Your task to perform on an android device: change the clock display to show seconds Image 0: 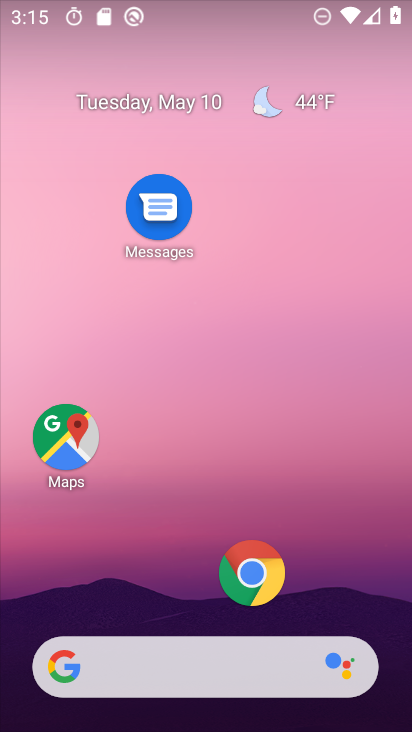
Step 0: drag from (166, 478) to (201, 201)
Your task to perform on an android device: change the clock display to show seconds Image 1: 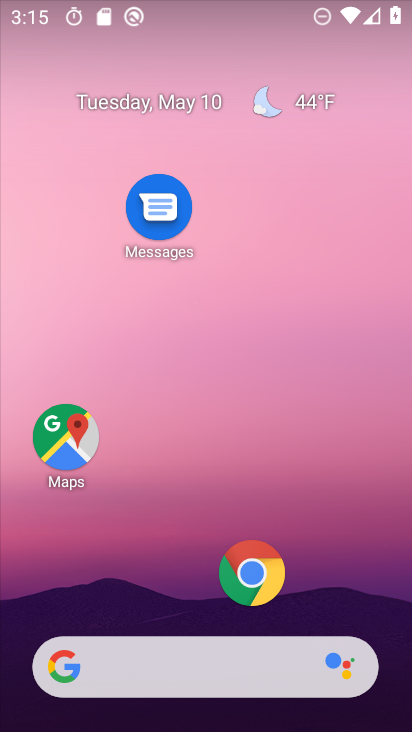
Step 1: drag from (200, 605) to (263, 140)
Your task to perform on an android device: change the clock display to show seconds Image 2: 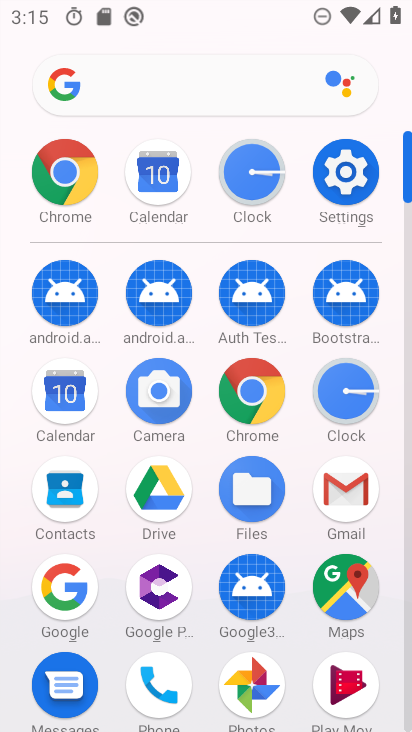
Step 2: click (344, 415)
Your task to perform on an android device: change the clock display to show seconds Image 3: 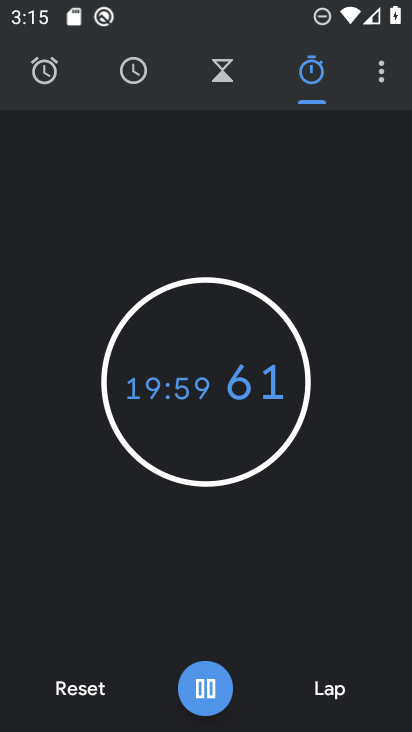
Step 3: click (376, 92)
Your task to perform on an android device: change the clock display to show seconds Image 4: 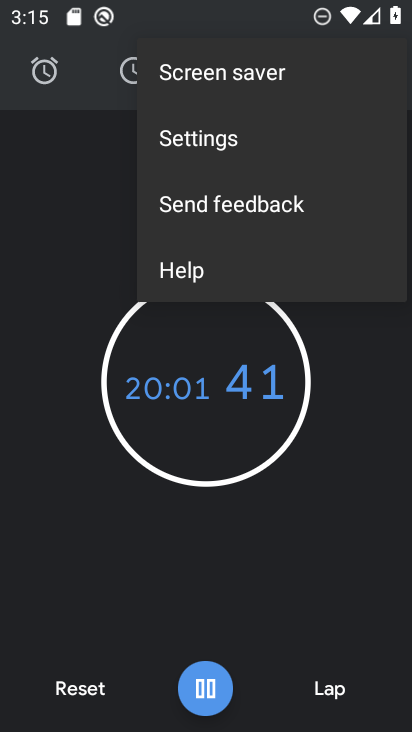
Step 4: click (319, 123)
Your task to perform on an android device: change the clock display to show seconds Image 5: 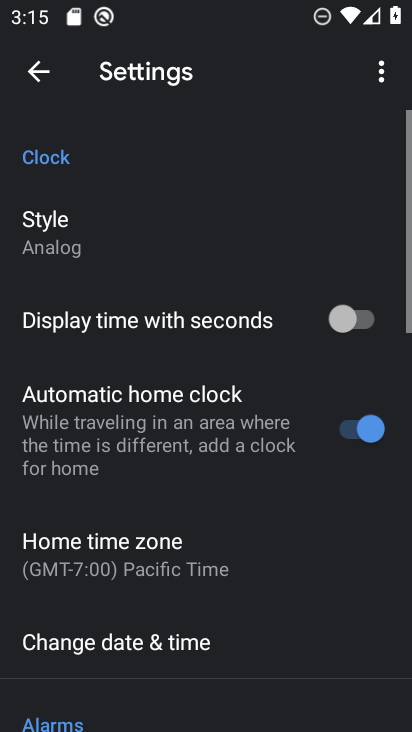
Step 5: click (377, 315)
Your task to perform on an android device: change the clock display to show seconds Image 6: 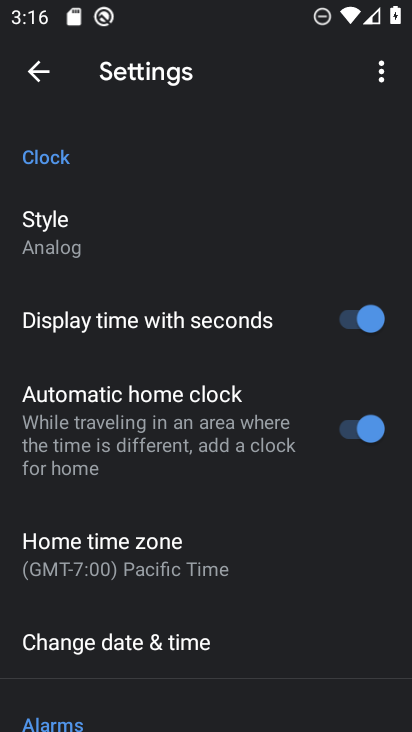
Step 6: task complete